Your task to perform on an android device: open a bookmark in the chrome app Image 0: 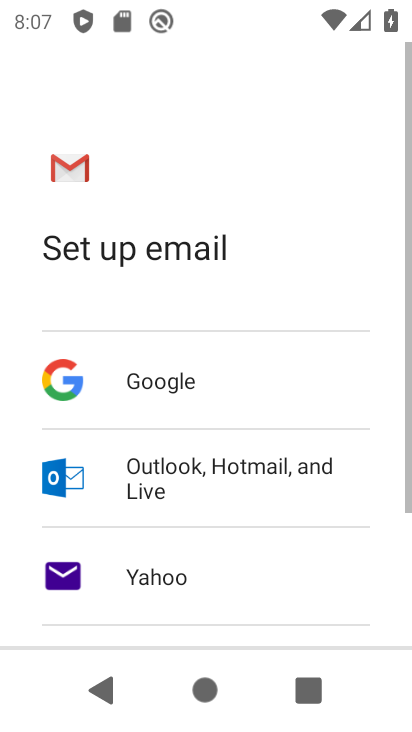
Step 0: press home button
Your task to perform on an android device: open a bookmark in the chrome app Image 1: 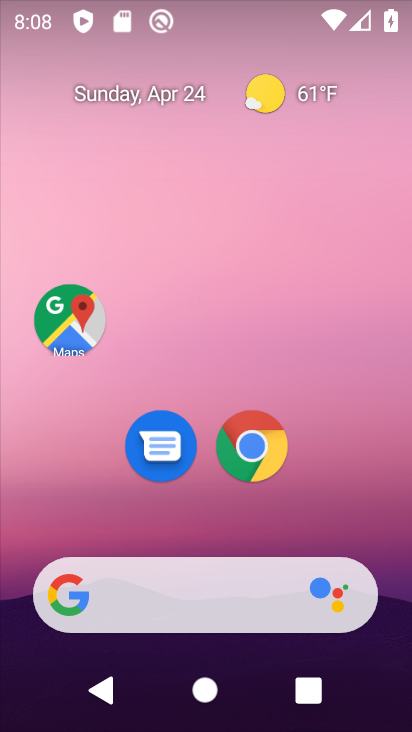
Step 1: drag from (292, 535) to (406, 48)
Your task to perform on an android device: open a bookmark in the chrome app Image 2: 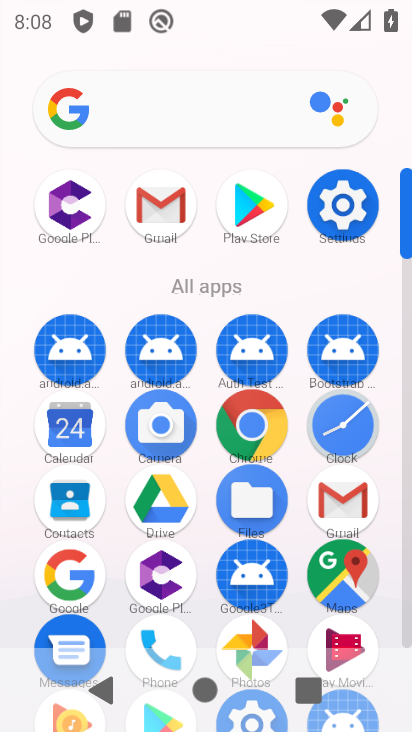
Step 2: click (260, 429)
Your task to perform on an android device: open a bookmark in the chrome app Image 3: 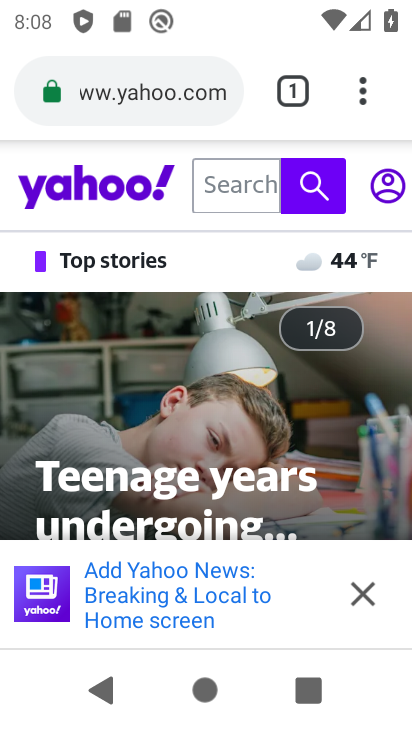
Step 3: click (367, 103)
Your task to perform on an android device: open a bookmark in the chrome app Image 4: 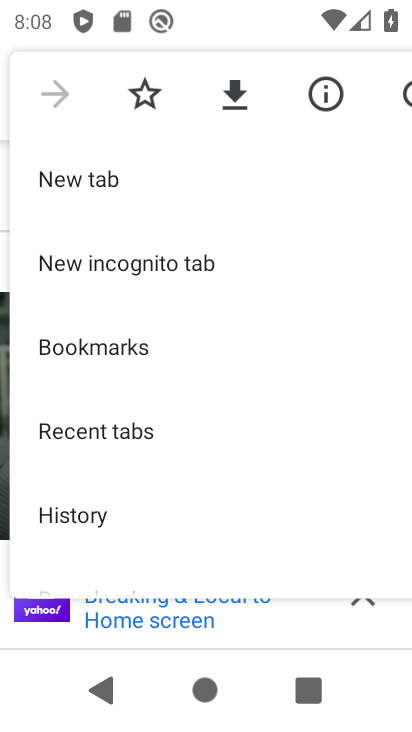
Step 4: click (143, 331)
Your task to perform on an android device: open a bookmark in the chrome app Image 5: 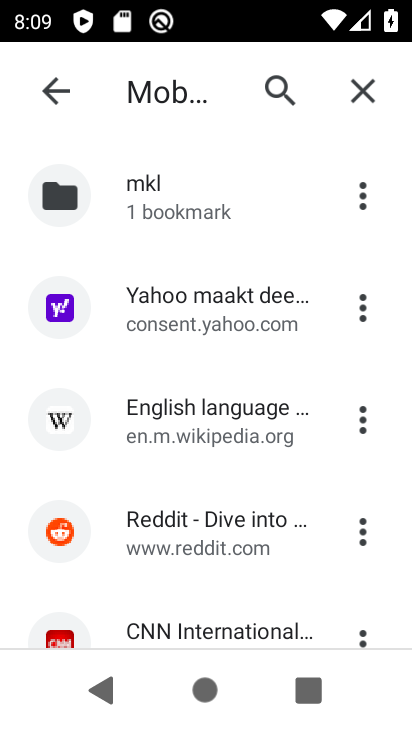
Step 5: click (212, 313)
Your task to perform on an android device: open a bookmark in the chrome app Image 6: 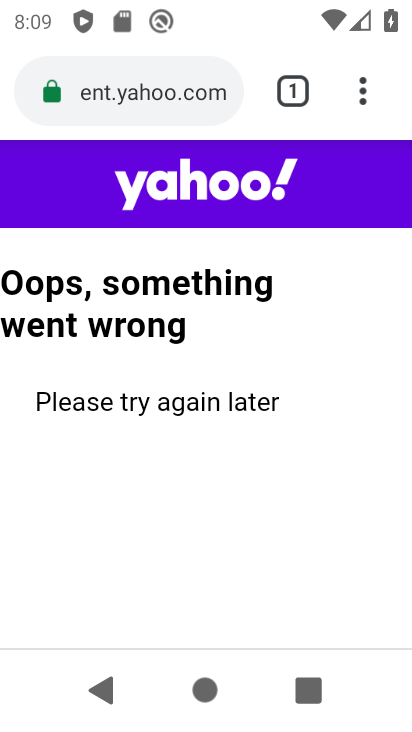
Step 6: task complete